Your task to perform on an android device: check google app version Image 0: 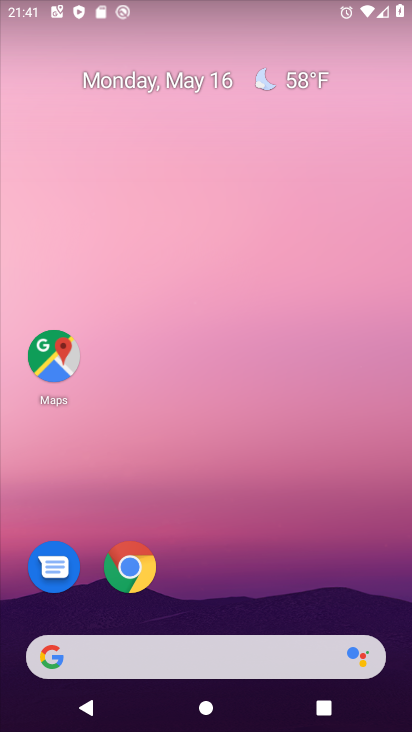
Step 0: drag from (234, 608) to (239, 296)
Your task to perform on an android device: check google app version Image 1: 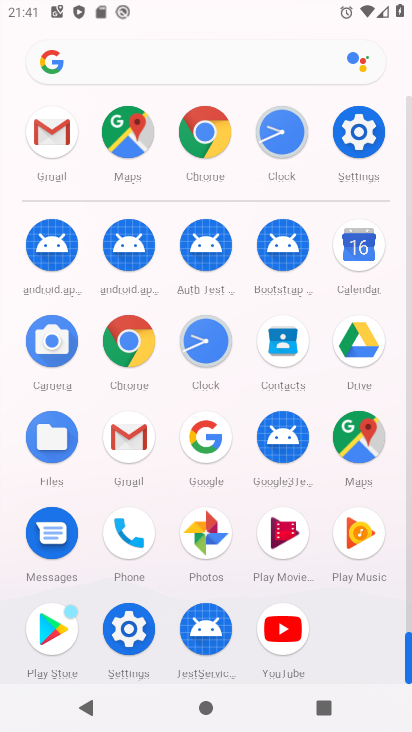
Step 1: click (194, 438)
Your task to perform on an android device: check google app version Image 2: 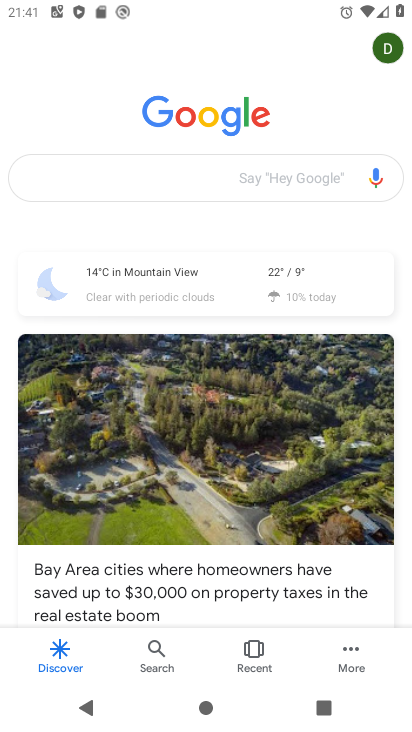
Step 2: click (351, 655)
Your task to perform on an android device: check google app version Image 3: 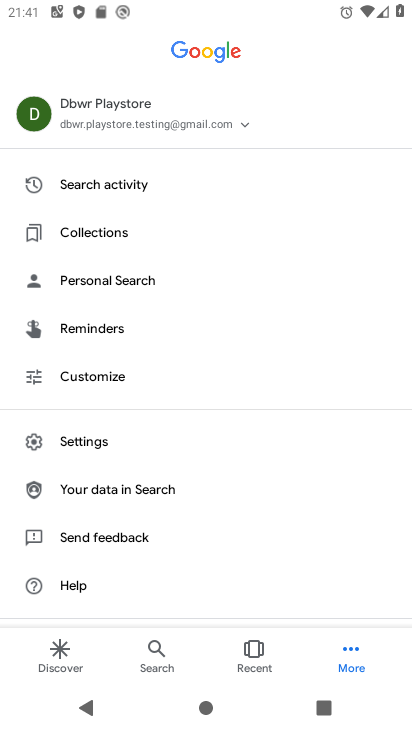
Step 3: click (99, 446)
Your task to perform on an android device: check google app version Image 4: 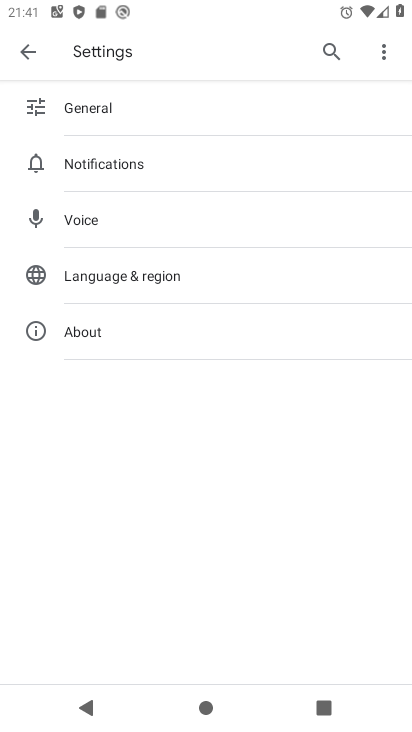
Step 4: click (98, 359)
Your task to perform on an android device: check google app version Image 5: 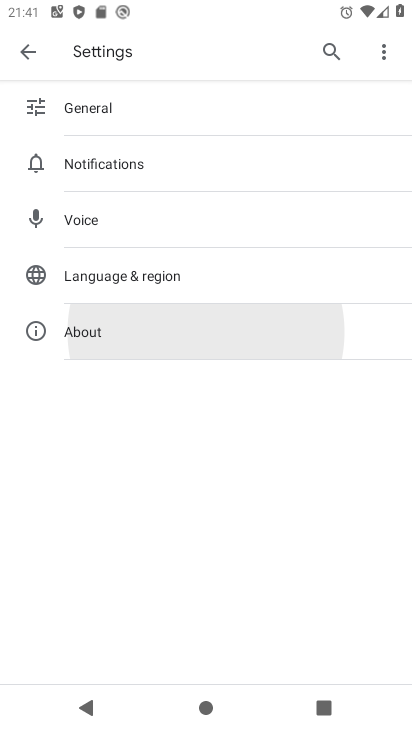
Step 5: click (91, 336)
Your task to perform on an android device: check google app version Image 6: 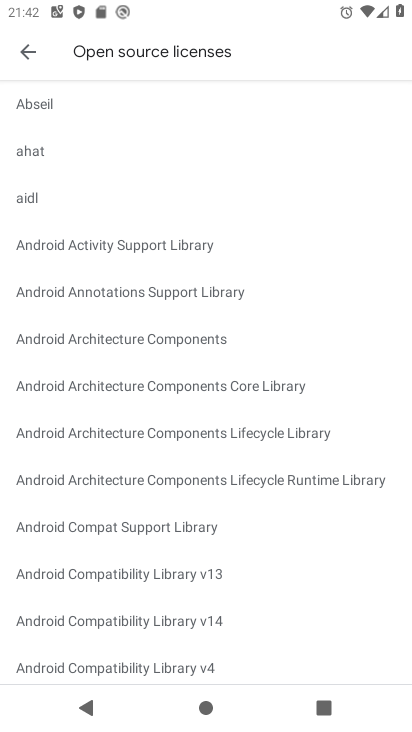
Step 6: task complete